Your task to perform on an android device: check android version Image 0: 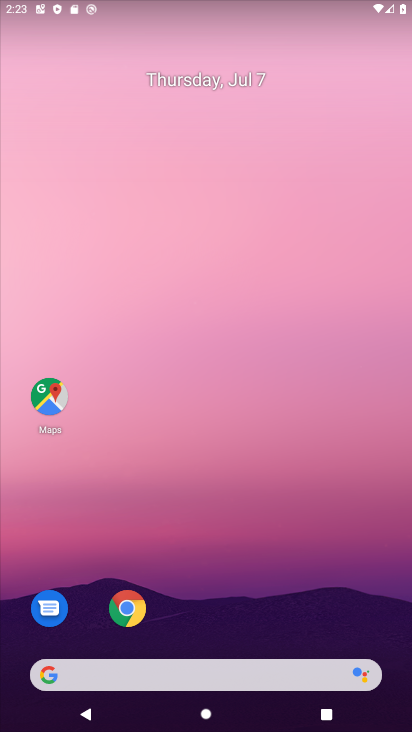
Step 0: drag from (388, 663) to (298, 84)
Your task to perform on an android device: check android version Image 1: 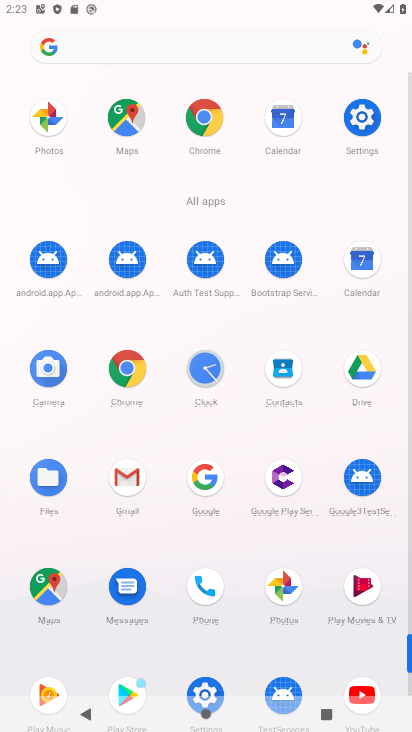
Step 1: click (410, 690)
Your task to perform on an android device: check android version Image 2: 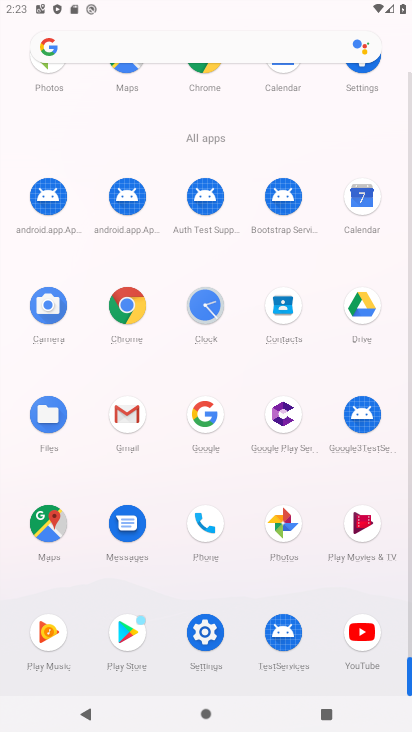
Step 2: click (205, 634)
Your task to perform on an android device: check android version Image 3: 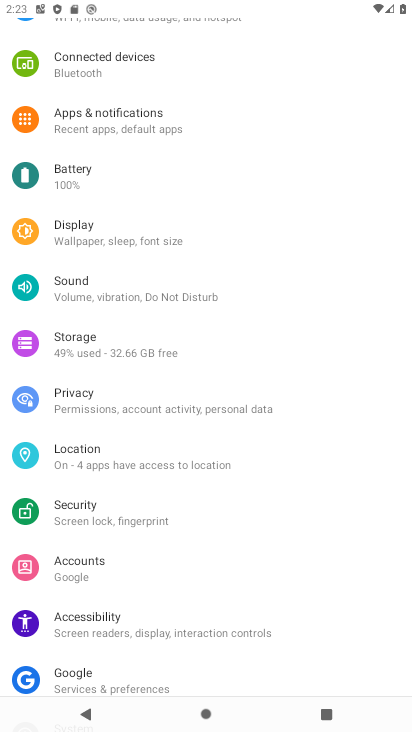
Step 3: drag from (334, 639) to (300, 169)
Your task to perform on an android device: check android version Image 4: 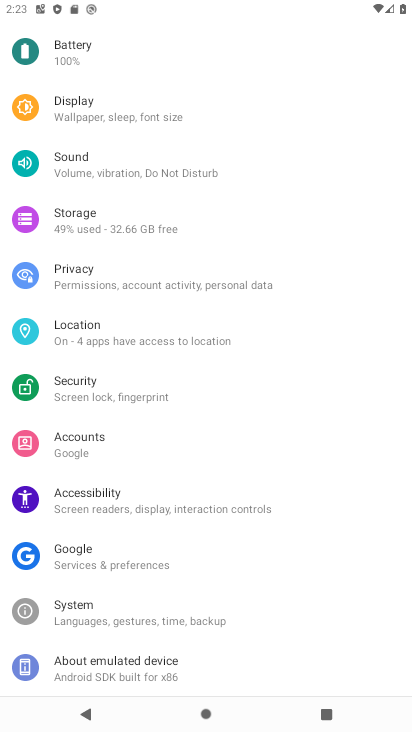
Step 4: click (99, 665)
Your task to perform on an android device: check android version Image 5: 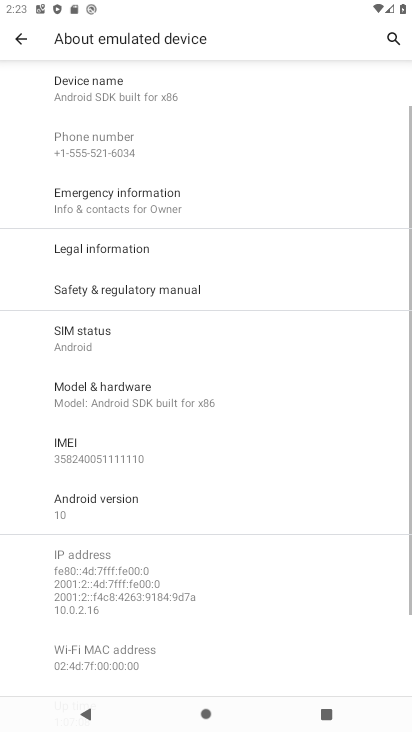
Step 5: click (99, 494)
Your task to perform on an android device: check android version Image 6: 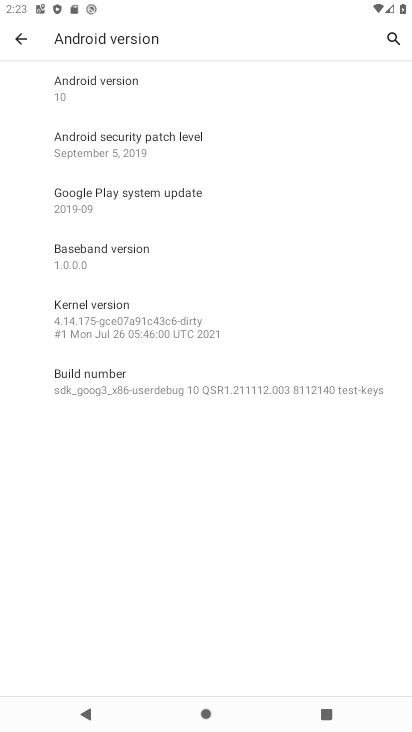
Step 6: click (95, 76)
Your task to perform on an android device: check android version Image 7: 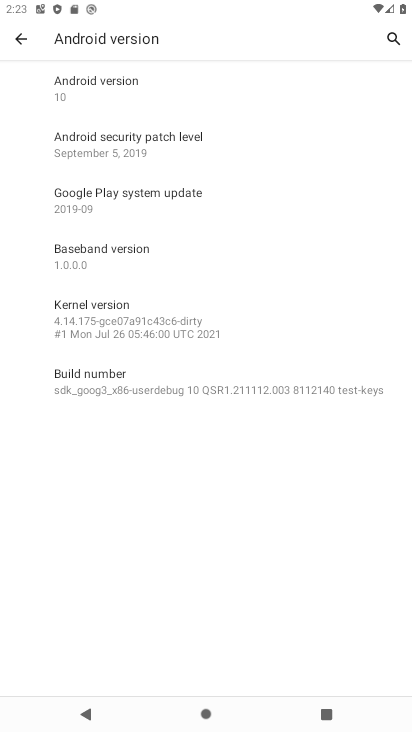
Step 7: task complete